Your task to perform on an android device: What time is it in Sydney? Image 0: 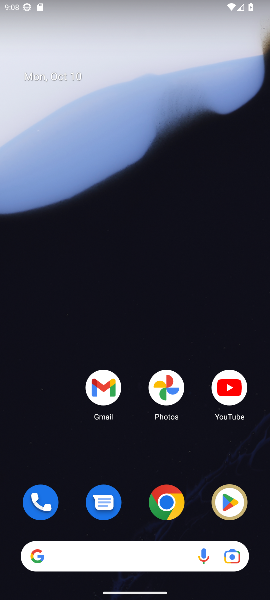
Step 0: click (136, 547)
Your task to perform on an android device: What time is it in Sydney? Image 1: 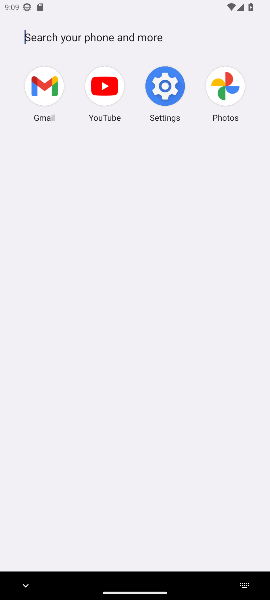
Step 1: type "what is it in sydney"
Your task to perform on an android device: What time is it in Sydney? Image 2: 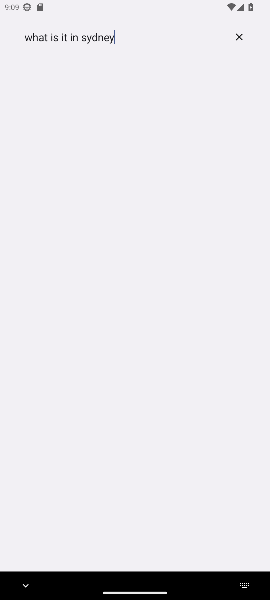
Step 2: type ""
Your task to perform on an android device: What time is it in Sydney? Image 3: 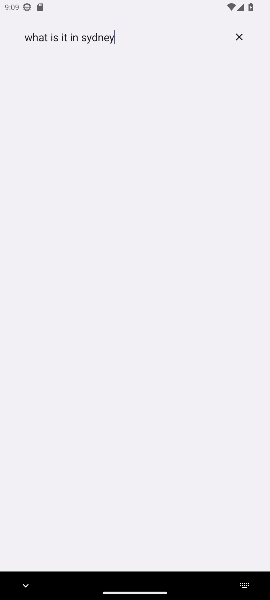
Step 3: press enter
Your task to perform on an android device: What time is it in Sydney? Image 4: 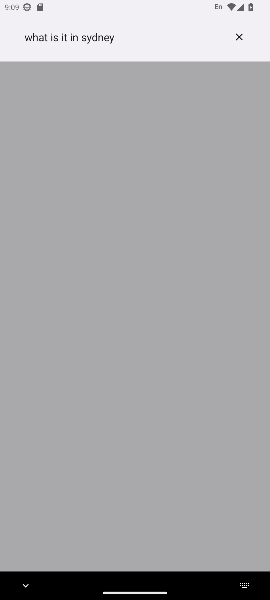
Step 4: press enter
Your task to perform on an android device: What time is it in Sydney? Image 5: 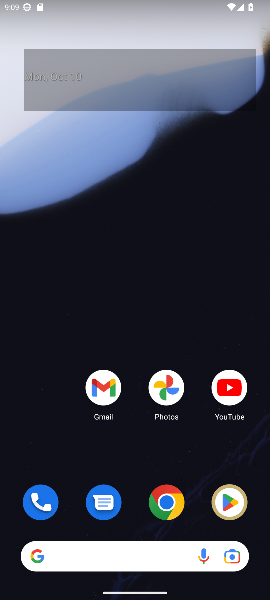
Step 5: click (159, 504)
Your task to perform on an android device: What time is it in Sydney? Image 6: 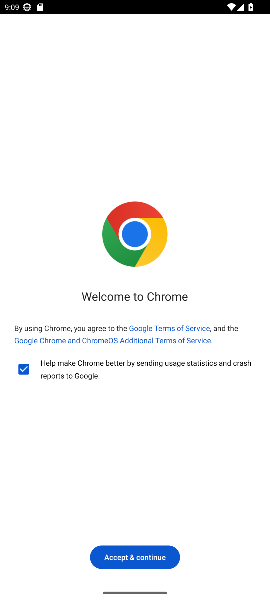
Step 6: click (158, 564)
Your task to perform on an android device: What time is it in Sydney? Image 7: 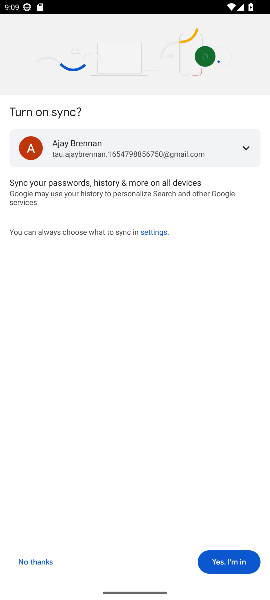
Step 7: click (219, 556)
Your task to perform on an android device: What time is it in Sydney? Image 8: 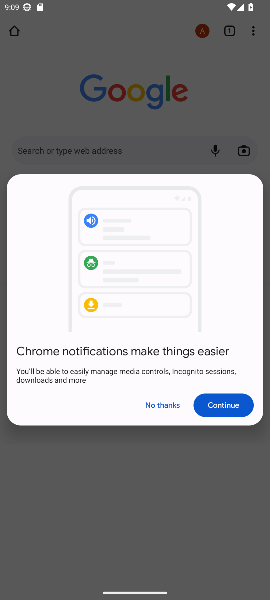
Step 8: click (213, 403)
Your task to perform on an android device: What time is it in Sydney? Image 9: 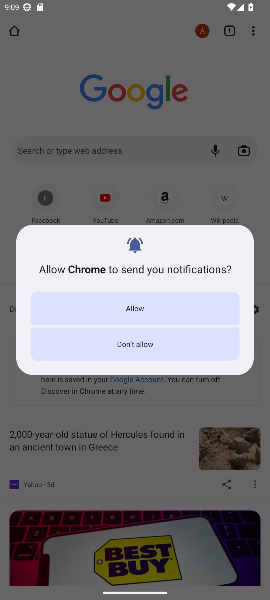
Step 9: click (165, 344)
Your task to perform on an android device: What time is it in Sydney? Image 10: 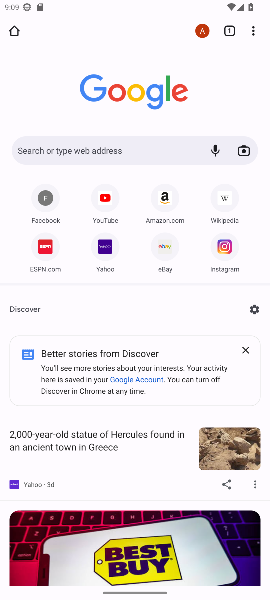
Step 10: click (164, 151)
Your task to perform on an android device: What time is it in Sydney? Image 11: 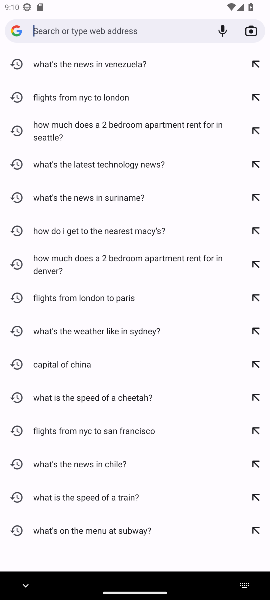
Step 11: type "what time is it in sydney?"
Your task to perform on an android device: What time is it in Sydney? Image 12: 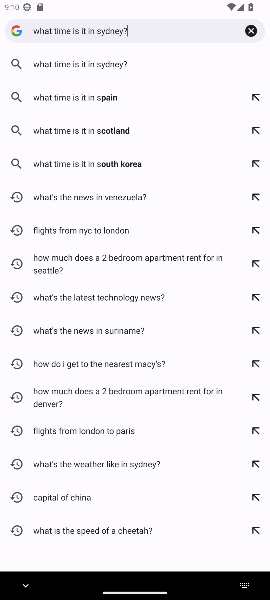
Step 12: type ""
Your task to perform on an android device: What time is it in Sydney? Image 13: 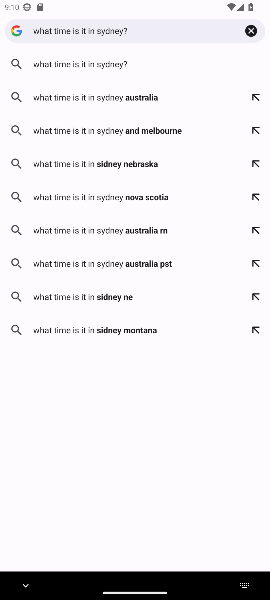
Step 13: click (147, 53)
Your task to perform on an android device: What time is it in Sydney? Image 14: 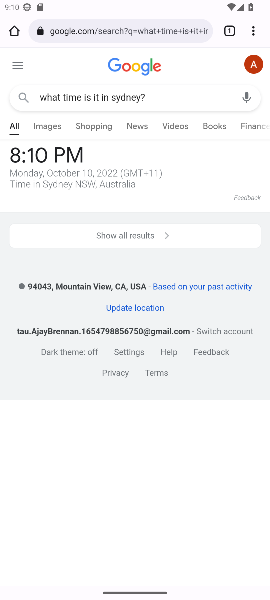
Step 14: click (85, 238)
Your task to perform on an android device: What time is it in Sydney? Image 15: 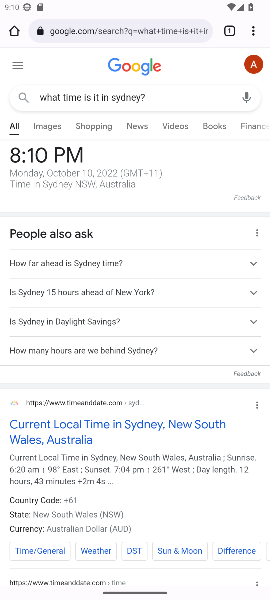
Step 15: drag from (122, 446) to (143, 245)
Your task to perform on an android device: What time is it in Sydney? Image 16: 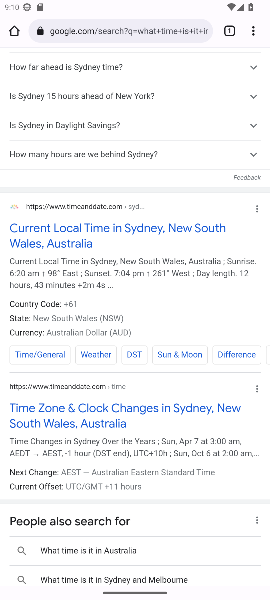
Step 16: click (120, 230)
Your task to perform on an android device: What time is it in Sydney? Image 17: 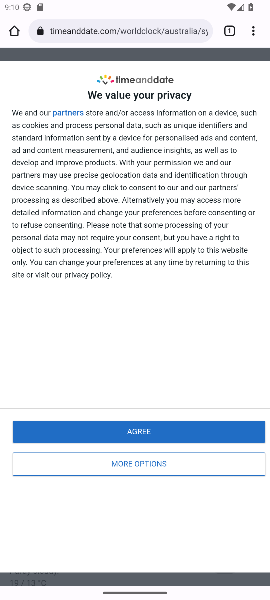
Step 17: drag from (123, 336) to (149, 134)
Your task to perform on an android device: What time is it in Sydney? Image 18: 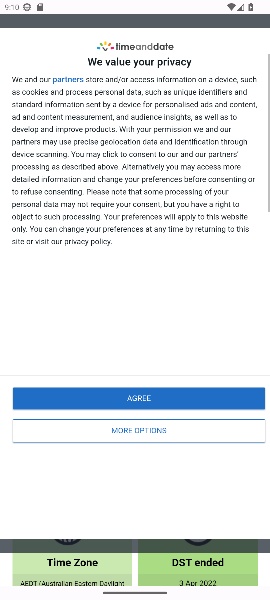
Step 18: drag from (158, 298) to (153, 117)
Your task to perform on an android device: What time is it in Sydney? Image 19: 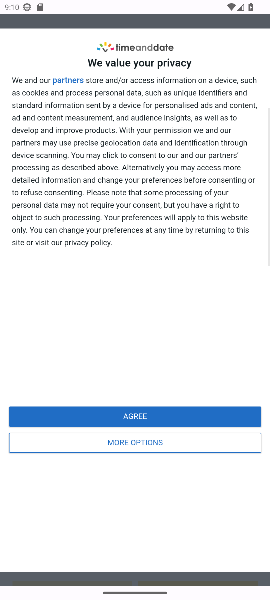
Step 19: drag from (157, 292) to (164, 113)
Your task to perform on an android device: What time is it in Sydney? Image 20: 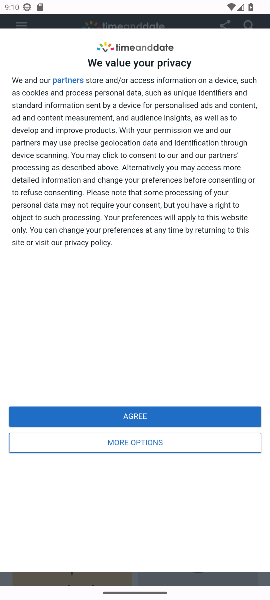
Step 20: click (171, 415)
Your task to perform on an android device: What time is it in Sydney? Image 21: 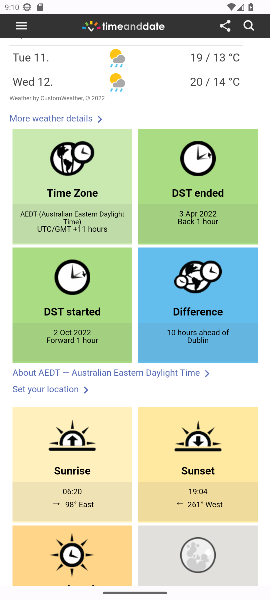
Step 21: task complete